Your task to perform on an android device: turn smart compose on in the gmail app Image 0: 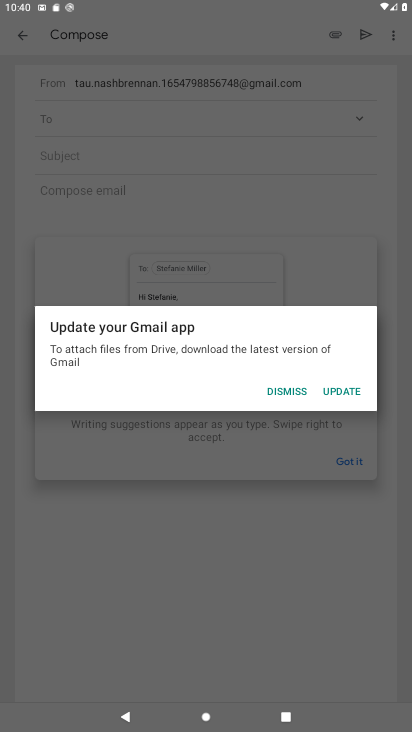
Step 0: press home button
Your task to perform on an android device: turn smart compose on in the gmail app Image 1: 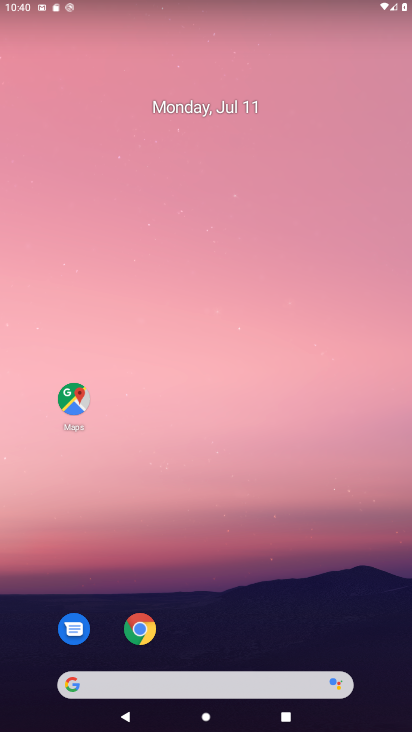
Step 1: drag from (208, 636) to (250, 92)
Your task to perform on an android device: turn smart compose on in the gmail app Image 2: 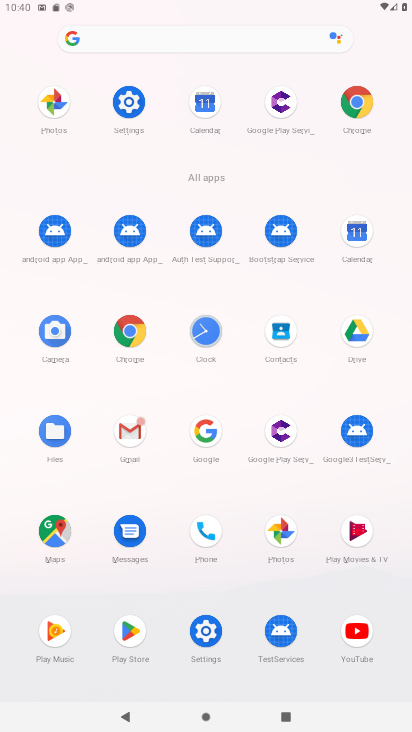
Step 2: click (124, 427)
Your task to perform on an android device: turn smart compose on in the gmail app Image 3: 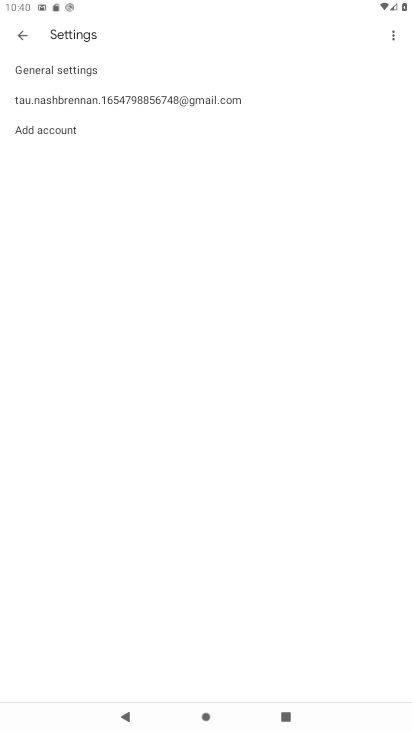
Step 3: click (61, 95)
Your task to perform on an android device: turn smart compose on in the gmail app Image 4: 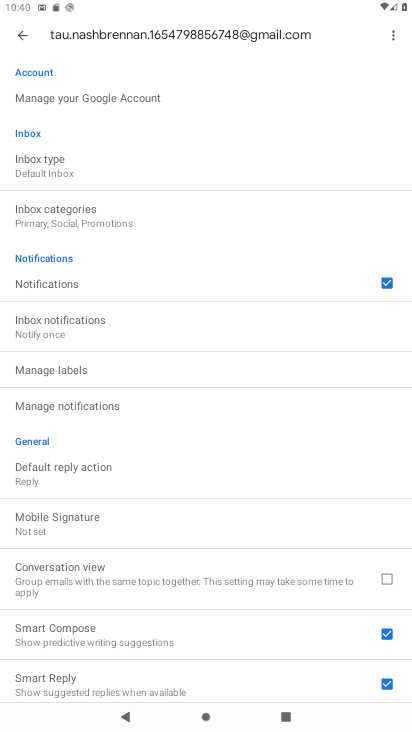
Step 4: task complete